Your task to perform on an android device: turn off improve location accuracy Image 0: 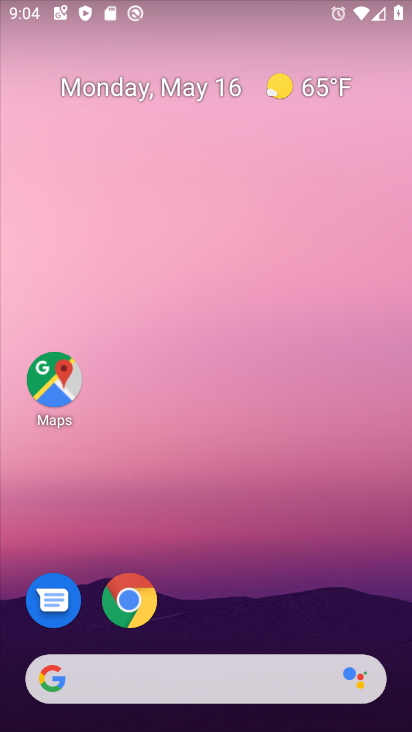
Step 0: drag from (209, 639) to (316, 6)
Your task to perform on an android device: turn off improve location accuracy Image 1: 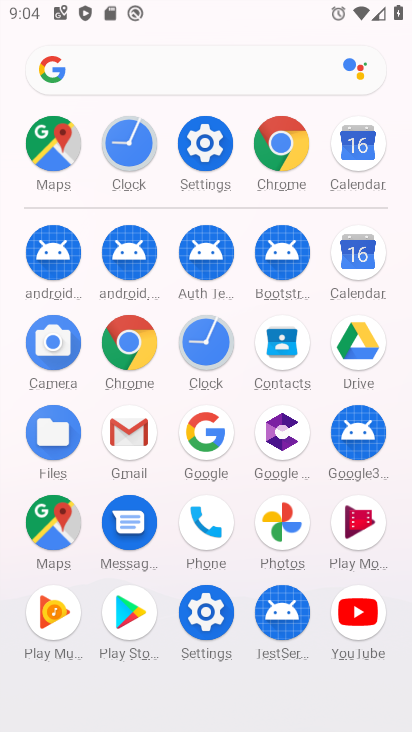
Step 1: click (213, 155)
Your task to perform on an android device: turn off improve location accuracy Image 2: 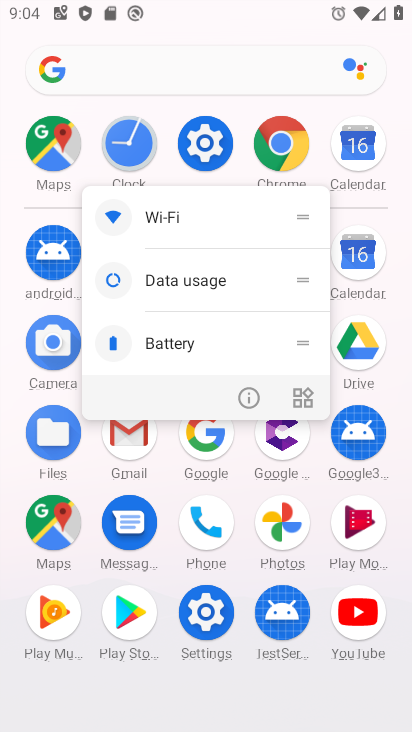
Step 2: click (260, 404)
Your task to perform on an android device: turn off improve location accuracy Image 3: 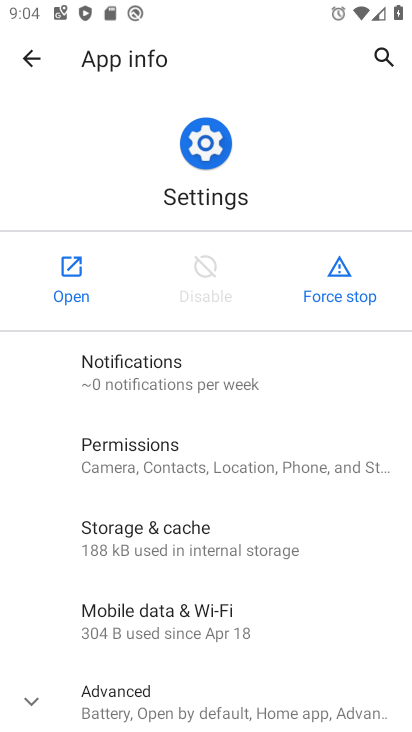
Step 3: click (78, 304)
Your task to perform on an android device: turn off improve location accuracy Image 4: 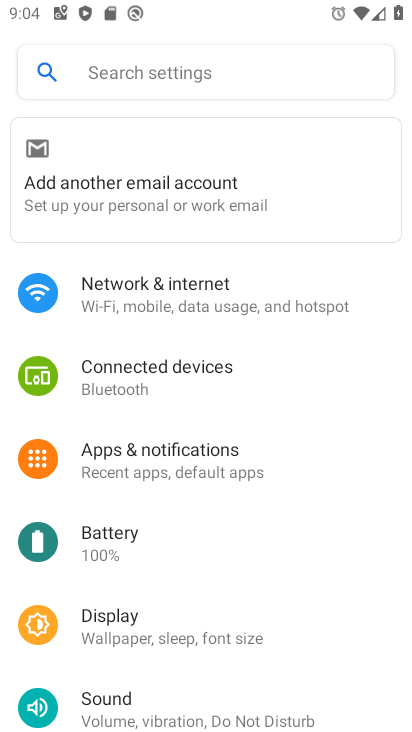
Step 4: drag from (265, 452) to (266, 215)
Your task to perform on an android device: turn off improve location accuracy Image 5: 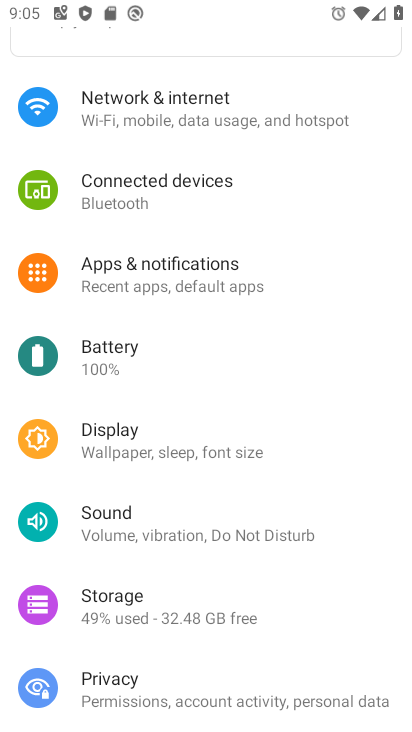
Step 5: drag from (194, 128) to (286, 567)
Your task to perform on an android device: turn off improve location accuracy Image 6: 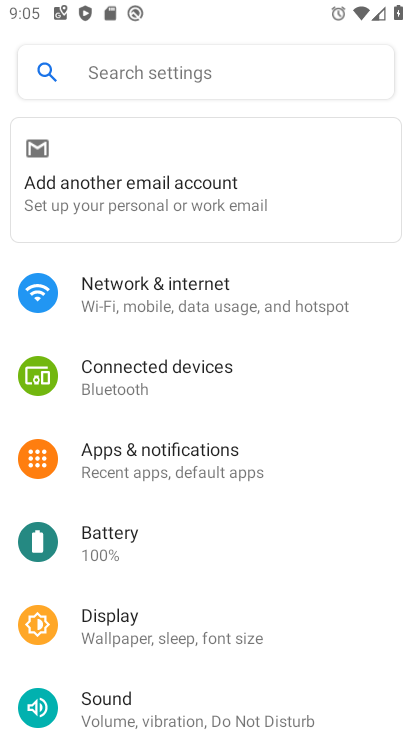
Step 6: drag from (238, 653) to (324, 182)
Your task to perform on an android device: turn off improve location accuracy Image 7: 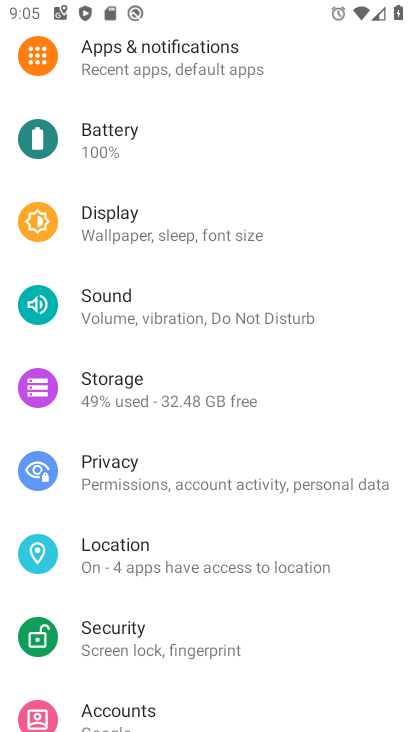
Step 7: click (136, 557)
Your task to perform on an android device: turn off improve location accuracy Image 8: 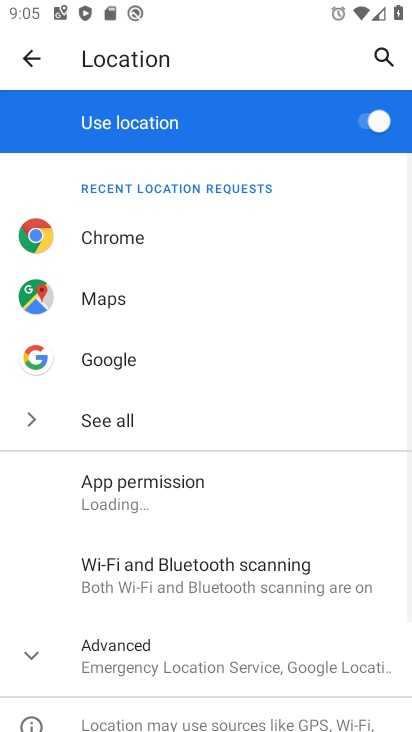
Step 8: drag from (191, 572) to (291, 135)
Your task to perform on an android device: turn off improve location accuracy Image 9: 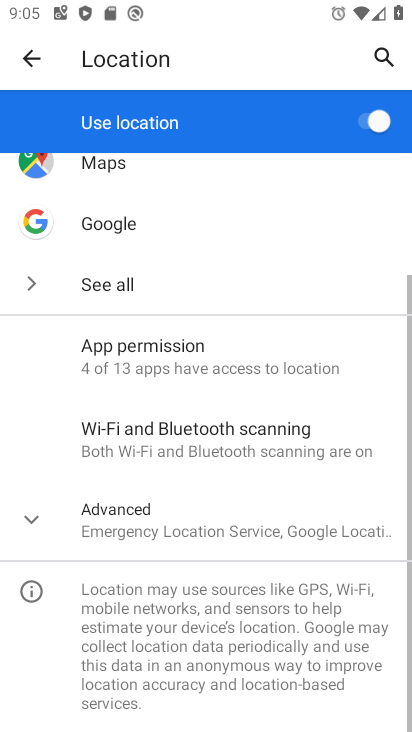
Step 9: click (155, 509)
Your task to perform on an android device: turn off improve location accuracy Image 10: 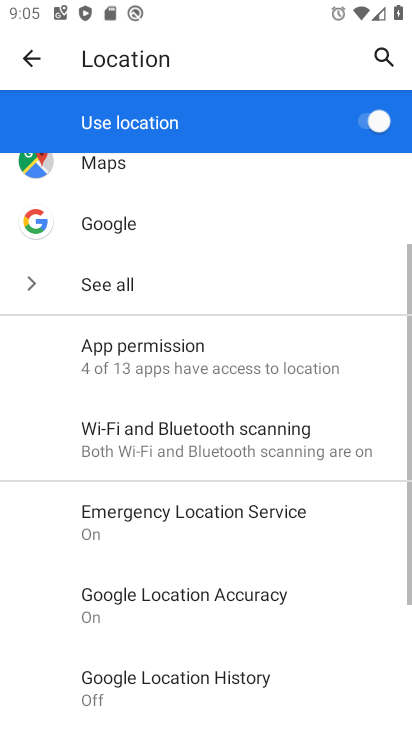
Step 10: drag from (155, 509) to (270, 89)
Your task to perform on an android device: turn off improve location accuracy Image 11: 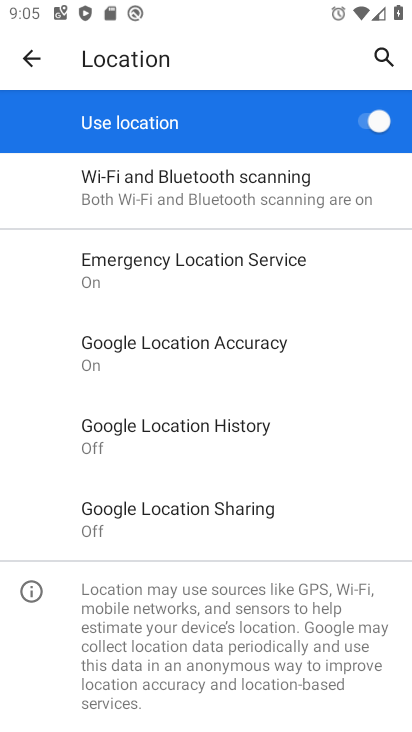
Step 11: click (203, 356)
Your task to perform on an android device: turn off improve location accuracy Image 12: 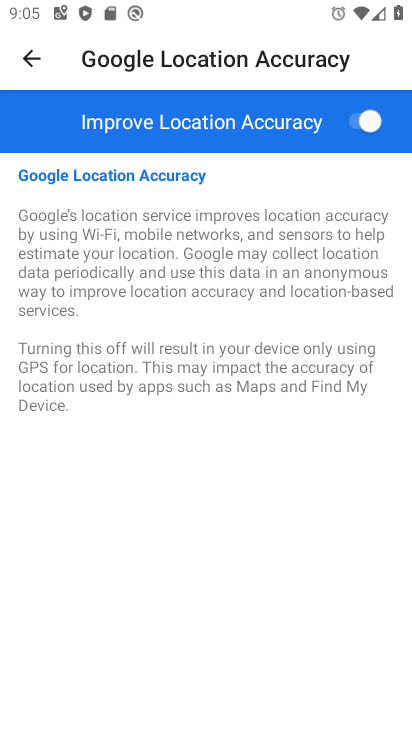
Step 12: click (362, 125)
Your task to perform on an android device: turn off improve location accuracy Image 13: 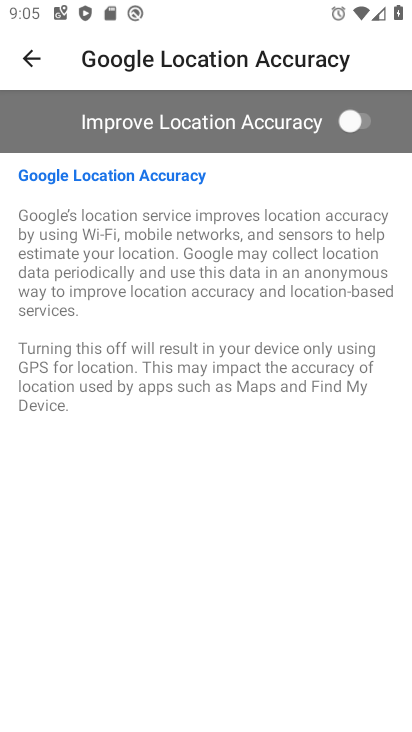
Step 13: task complete